Your task to perform on an android device: When is my next appointment? Image 0: 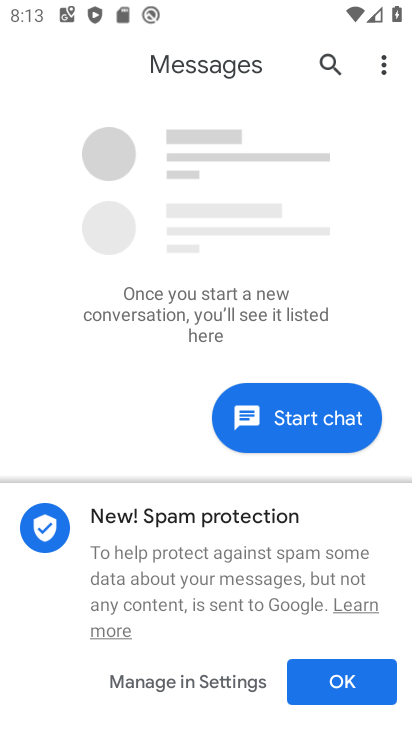
Step 0: press home button
Your task to perform on an android device: When is my next appointment? Image 1: 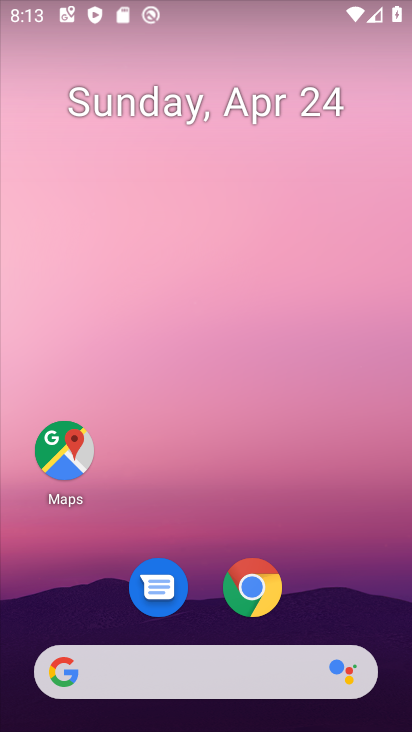
Step 1: drag from (361, 539) to (366, 109)
Your task to perform on an android device: When is my next appointment? Image 2: 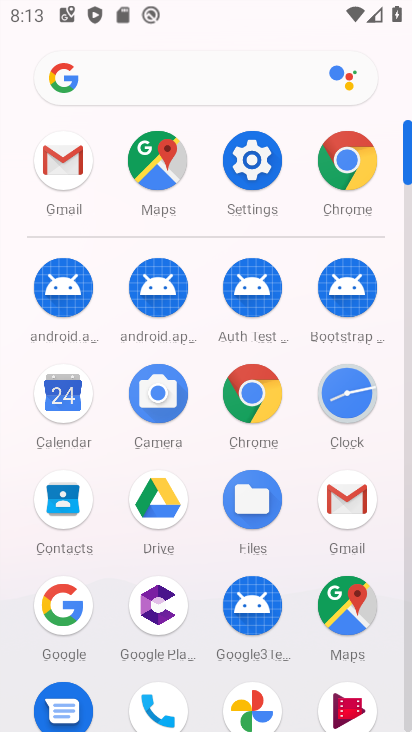
Step 2: click (65, 395)
Your task to perform on an android device: When is my next appointment? Image 3: 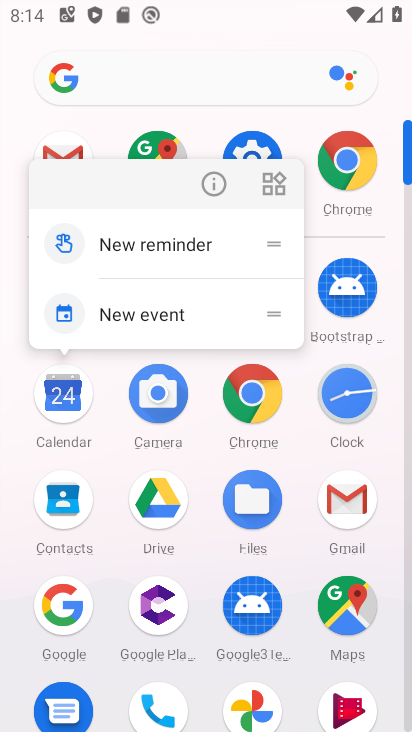
Step 3: click (69, 383)
Your task to perform on an android device: When is my next appointment? Image 4: 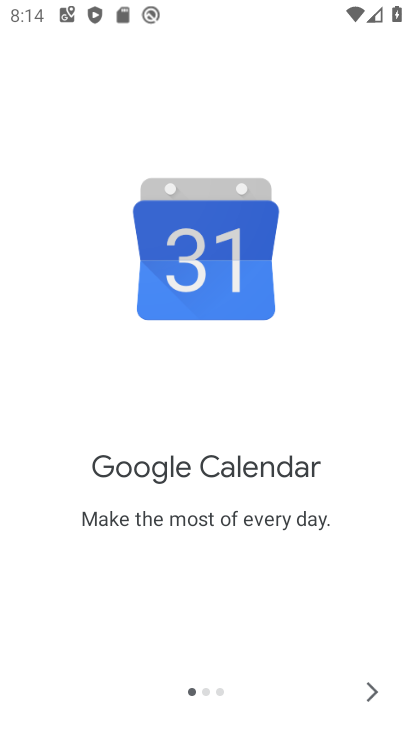
Step 4: click (377, 693)
Your task to perform on an android device: When is my next appointment? Image 5: 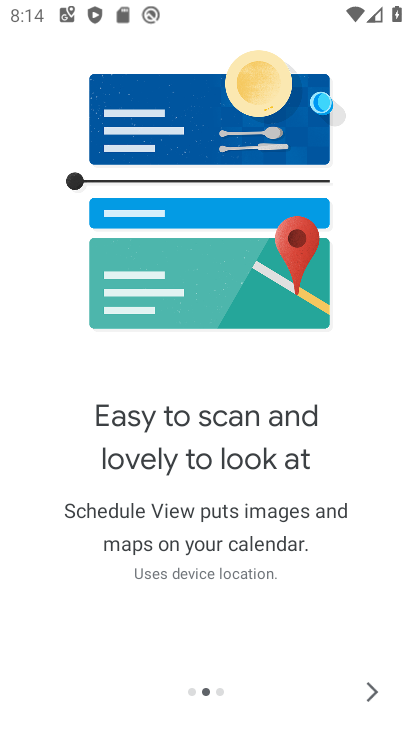
Step 5: click (376, 693)
Your task to perform on an android device: When is my next appointment? Image 6: 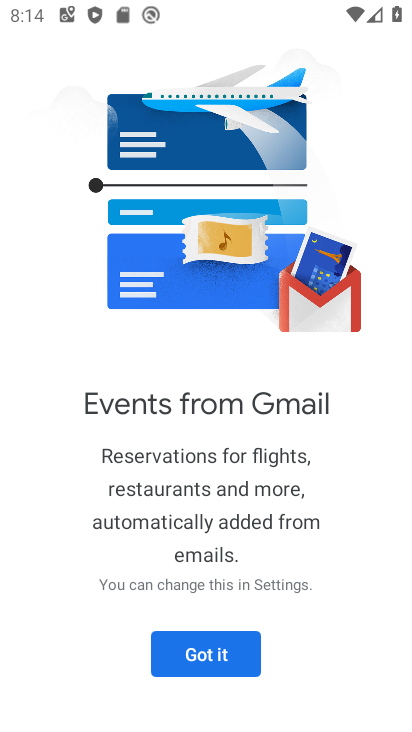
Step 6: click (376, 693)
Your task to perform on an android device: When is my next appointment? Image 7: 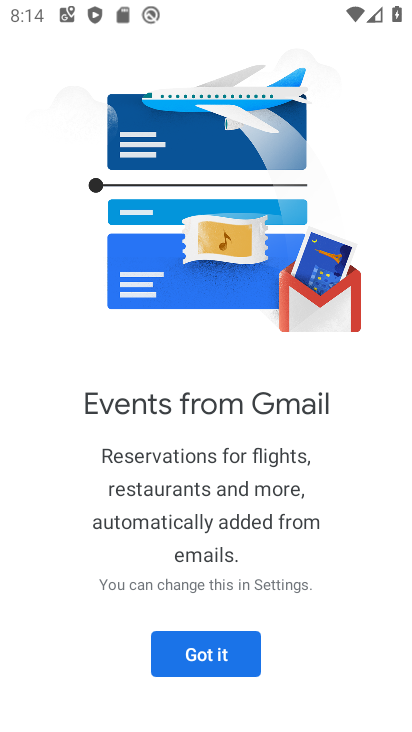
Step 7: click (232, 656)
Your task to perform on an android device: When is my next appointment? Image 8: 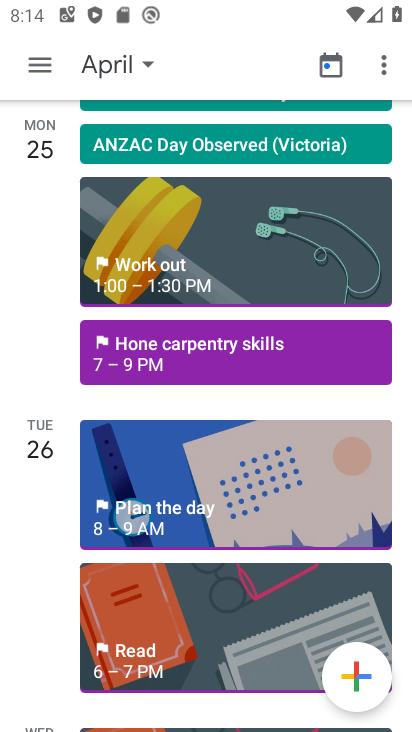
Step 8: task complete